Your task to perform on an android device: How much does a 3 bedroom apartment rent for in Philadelphia? Image 0: 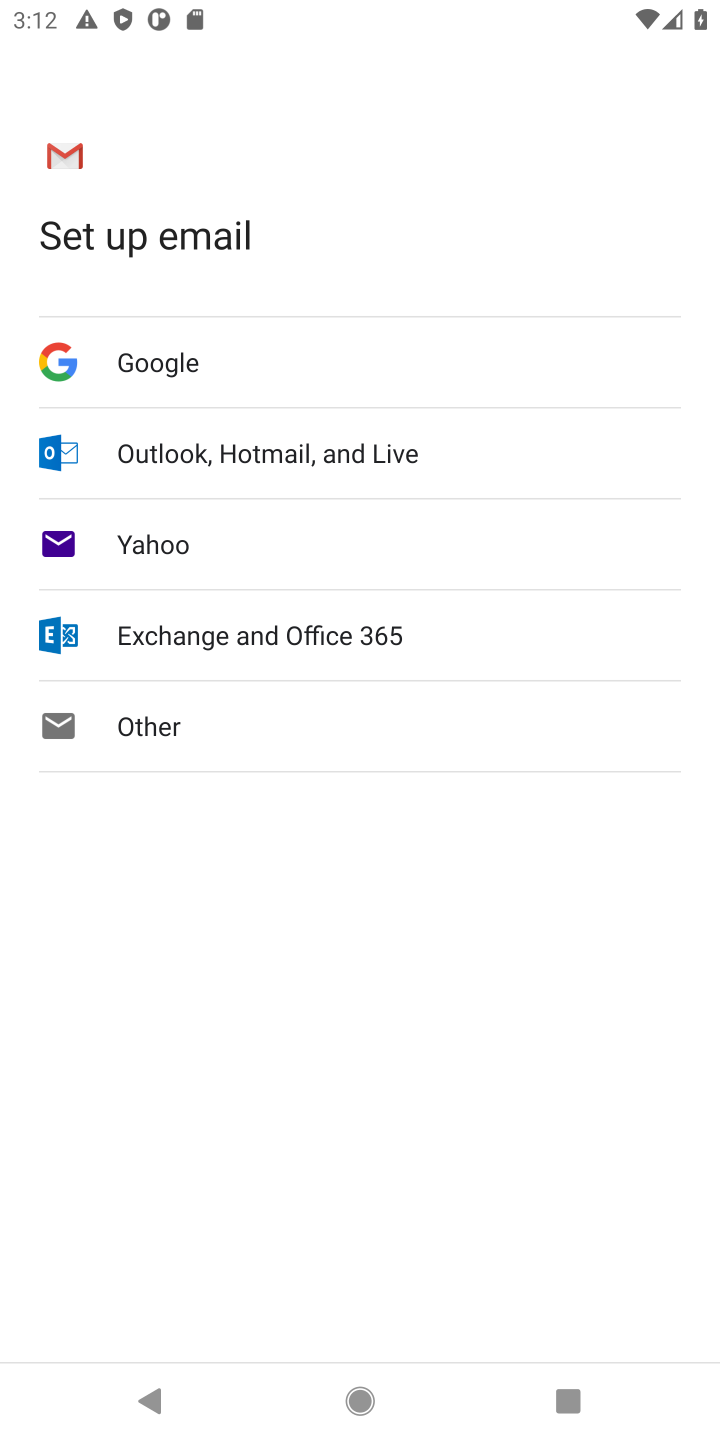
Step 0: press home button
Your task to perform on an android device: How much does a 3 bedroom apartment rent for in Philadelphia? Image 1: 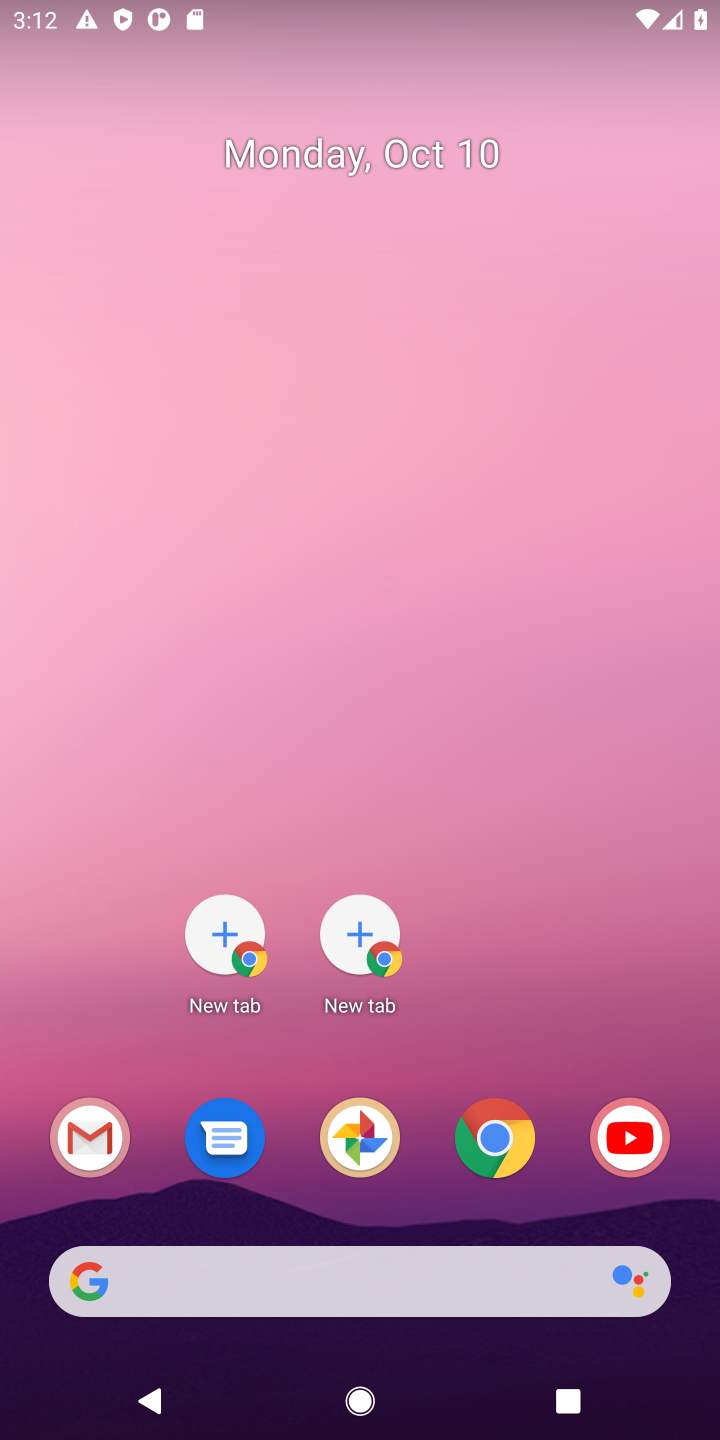
Step 1: click (498, 1155)
Your task to perform on an android device: How much does a 3 bedroom apartment rent for in Philadelphia? Image 2: 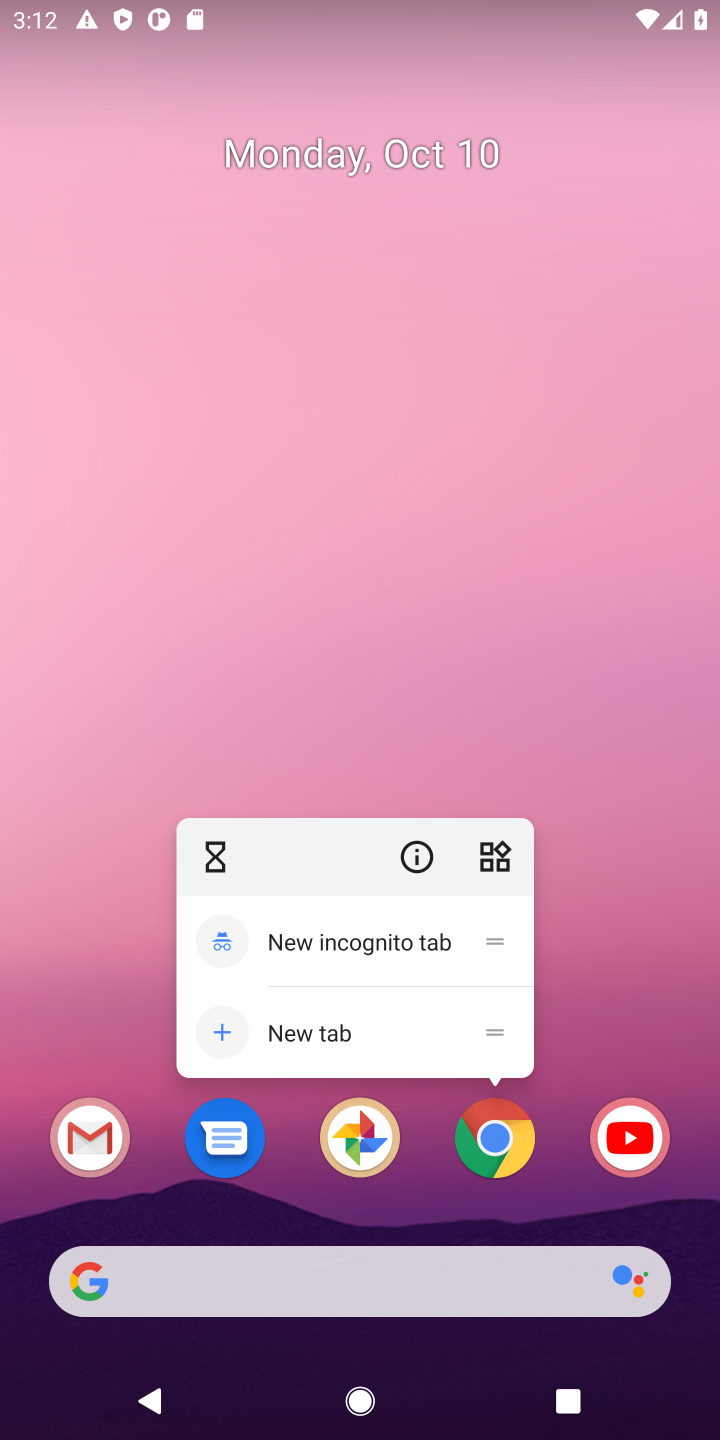
Step 2: click (490, 1134)
Your task to perform on an android device: How much does a 3 bedroom apartment rent for in Philadelphia? Image 3: 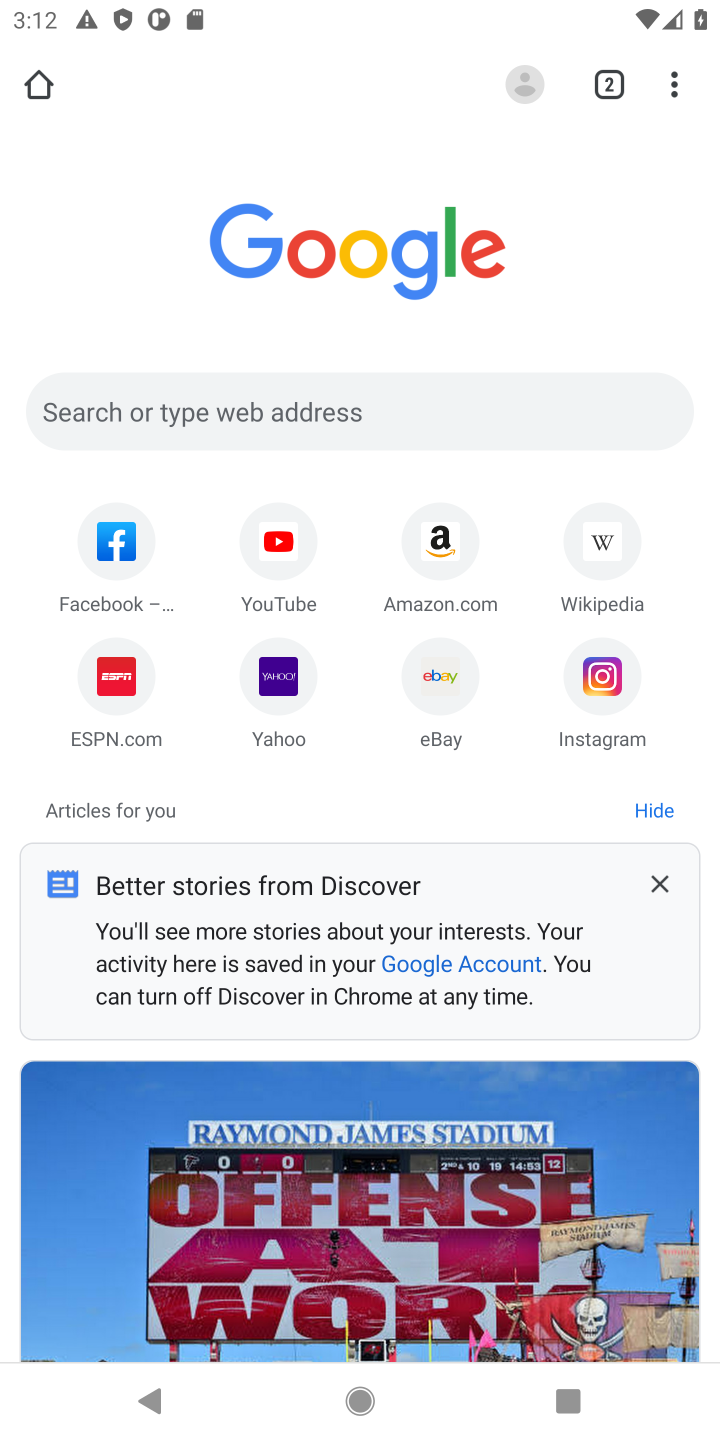
Step 3: click (479, 404)
Your task to perform on an android device: How much does a 3 bedroom apartment rent for in Philadelphia? Image 4: 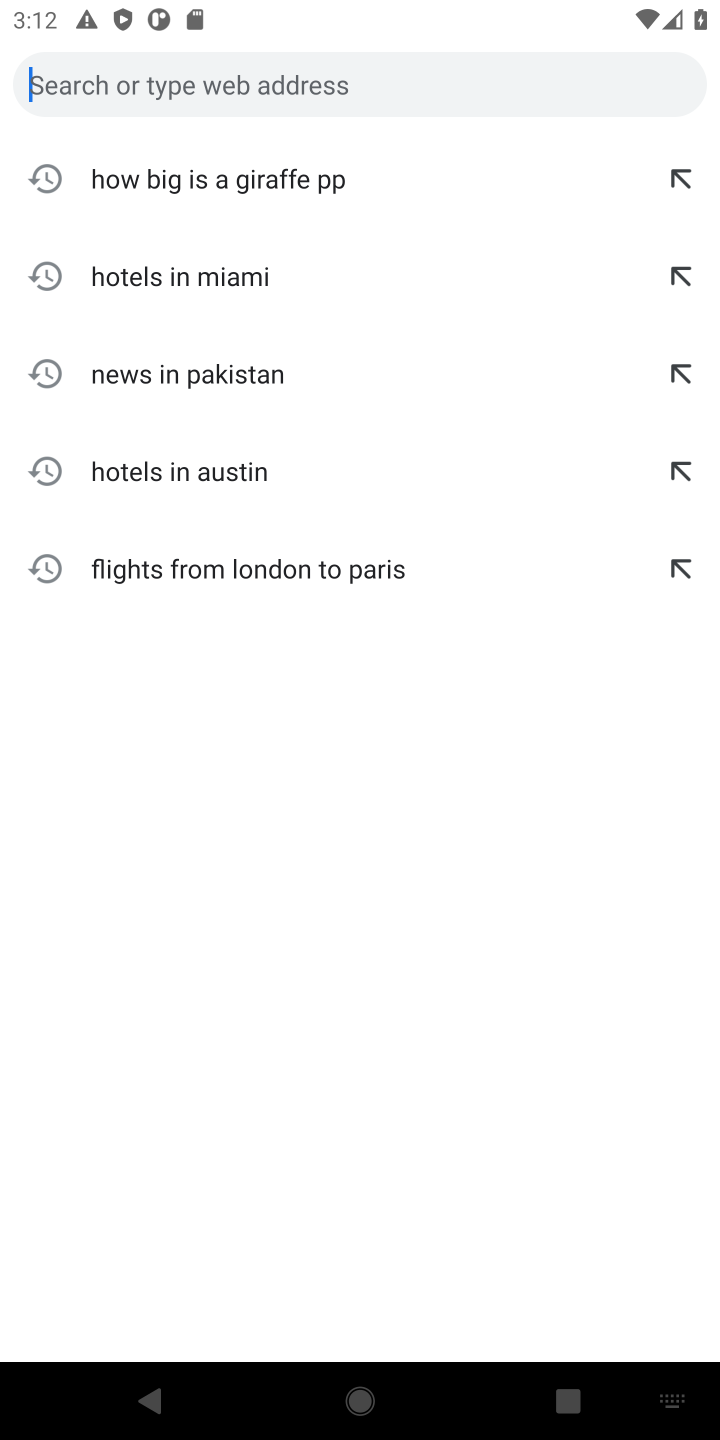
Step 4: type "3 bedroom apartment rent in Philadelphia"
Your task to perform on an android device: How much does a 3 bedroom apartment rent for in Philadelphia? Image 5: 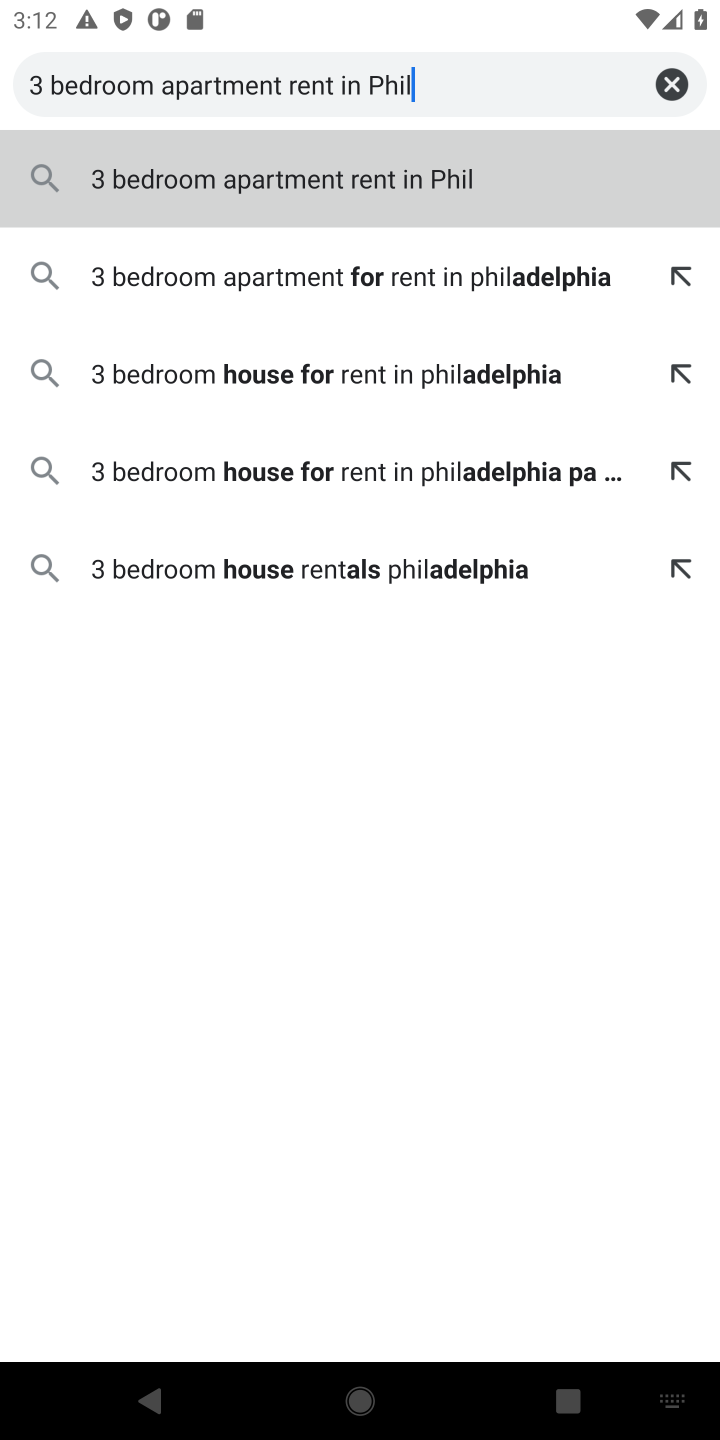
Step 5: press enter
Your task to perform on an android device: How much does a 3 bedroom apartment rent for in Philadelphia? Image 6: 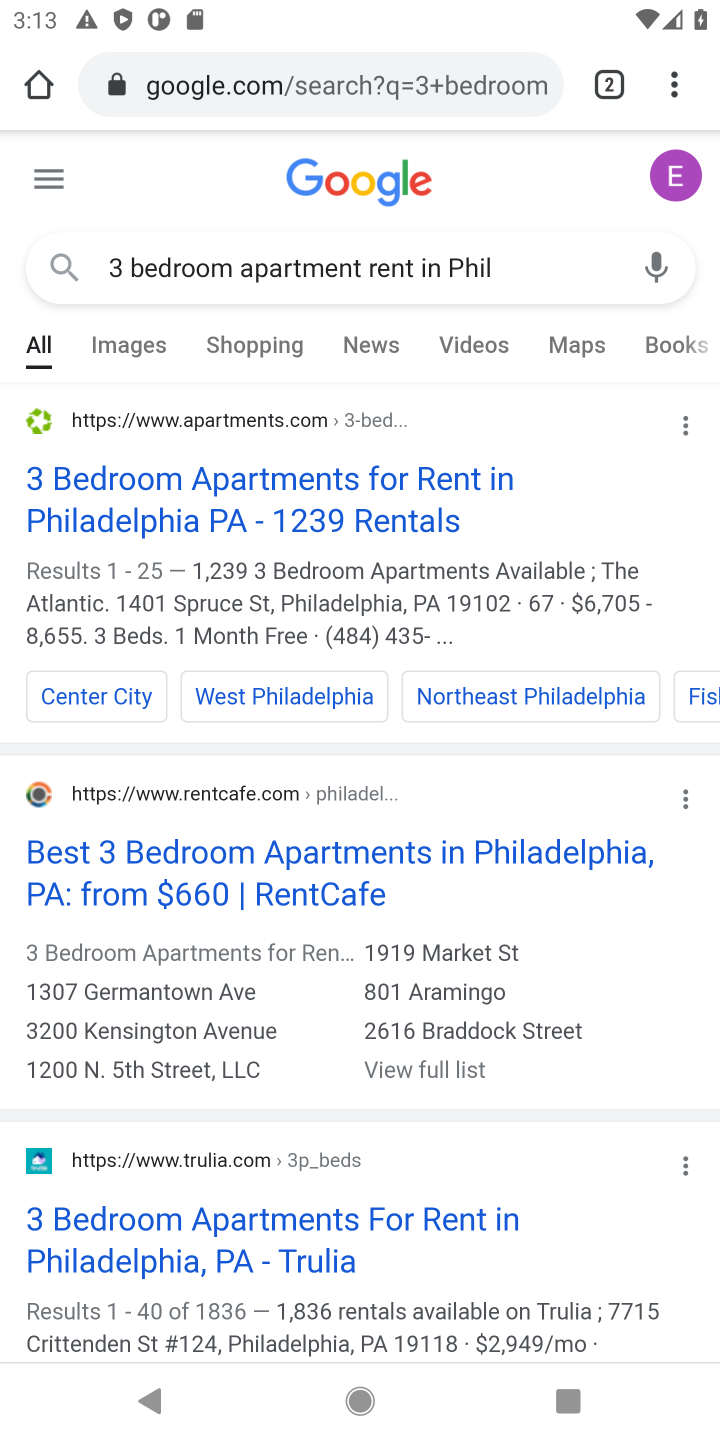
Step 6: click (297, 519)
Your task to perform on an android device: How much does a 3 bedroom apartment rent for in Philadelphia? Image 7: 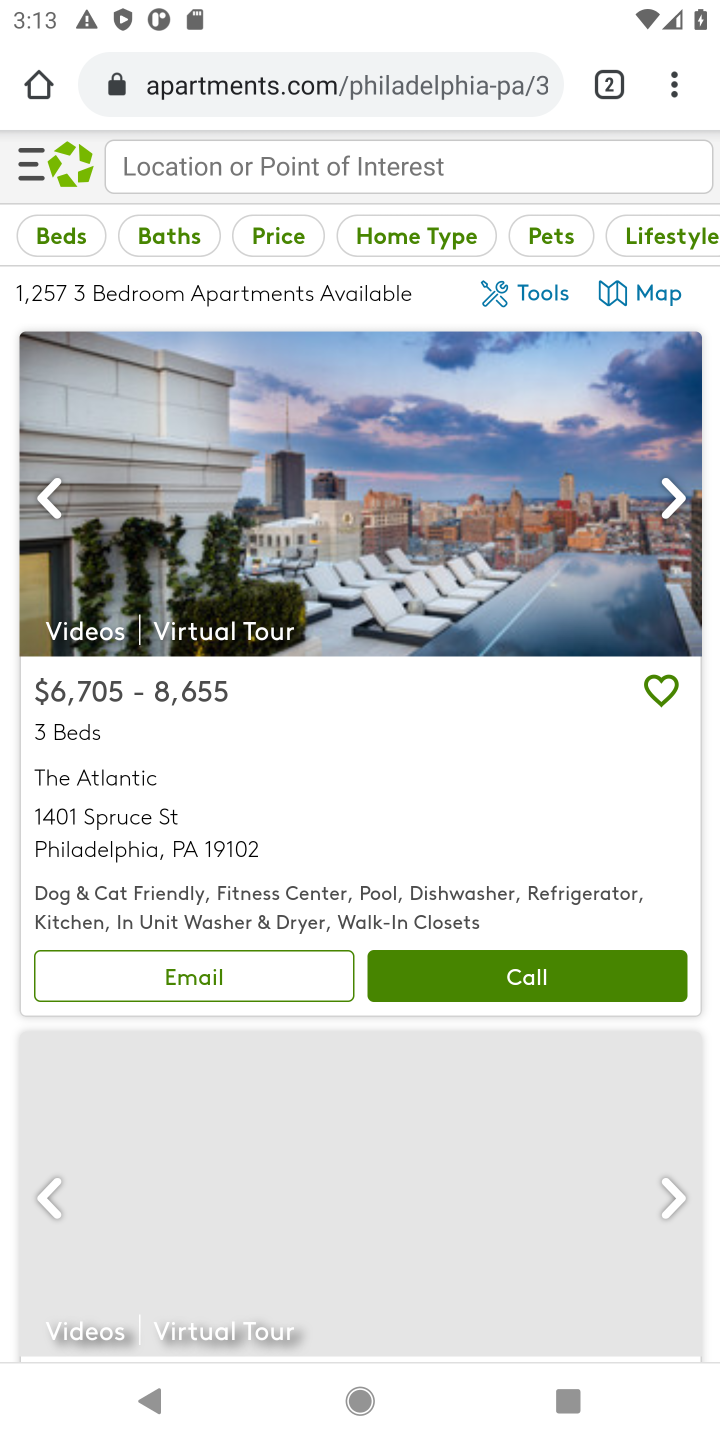
Step 7: task complete